Your task to perform on an android device: When is my next appointment? Image 0: 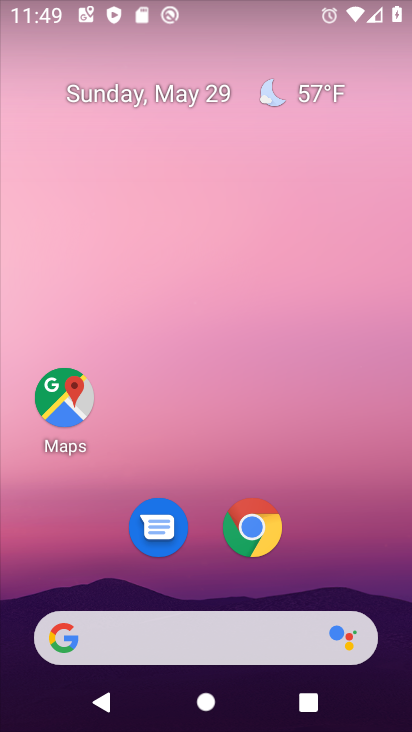
Step 0: click (155, 99)
Your task to perform on an android device: When is my next appointment? Image 1: 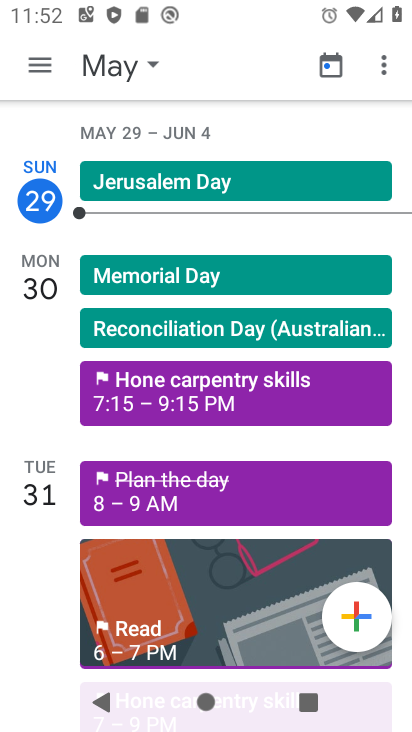
Step 1: task complete